Your task to perform on an android device: toggle improve location accuracy Image 0: 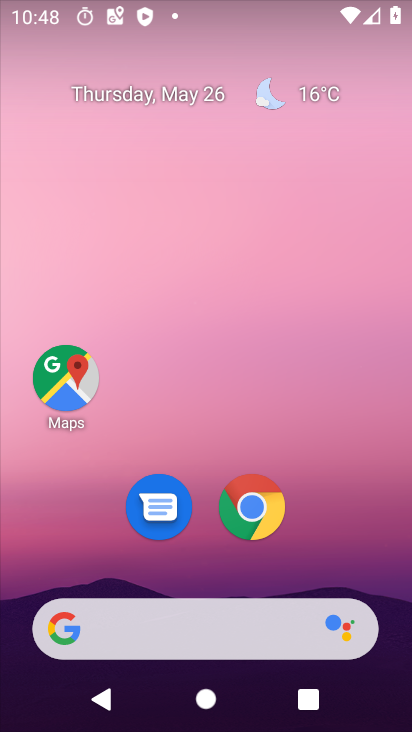
Step 0: drag from (228, 427) to (236, 285)
Your task to perform on an android device: toggle improve location accuracy Image 1: 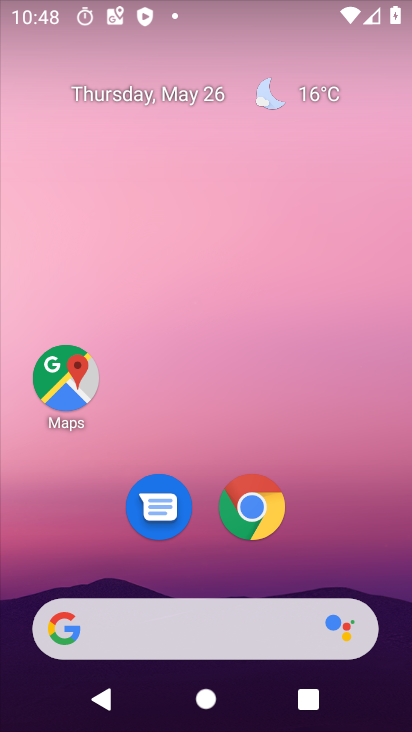
Step 1: drag from (223, 600) to (227, 245)
Your task to perform on an android device: toggle improve location accuracy Image 2: 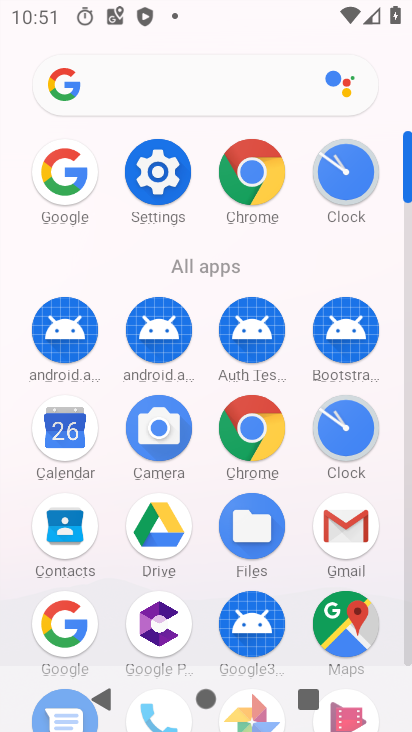
Step 2: click (142, 180)
Your task to perform on an android device: toggle improve location accuracy Image 3: 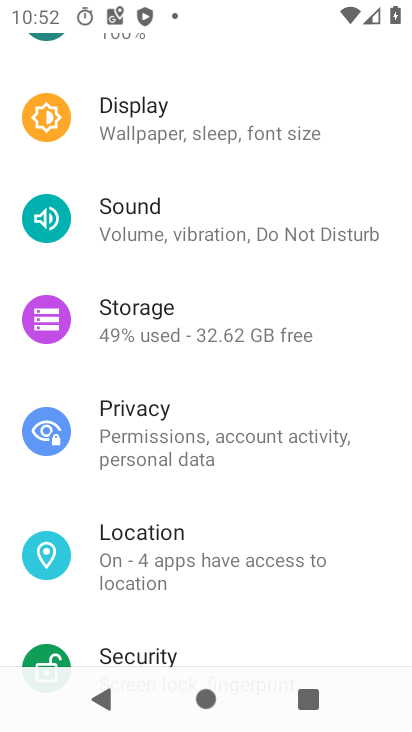
Step 3: click (160, 556)
Your task to perform on an android device: toggle improve location accuracy Image 4: 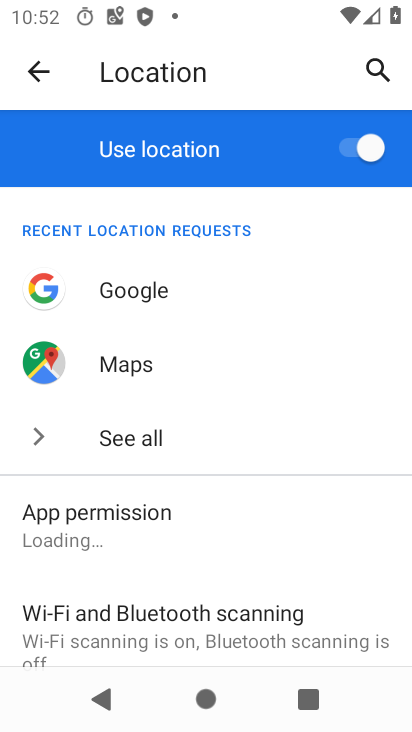
Step 4: click (151, 630)
Your task to perform on an android device: toggle improve location accuracy Image 5: 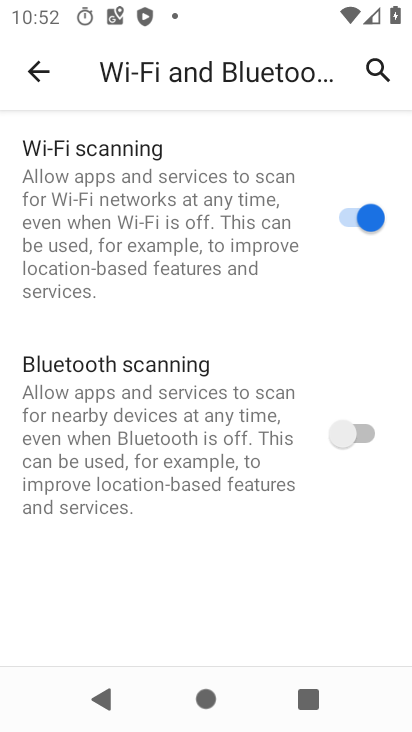
Step 5: click (41, 96)
Your task to perform on an android device: toggle improve location accuracy Image 6: 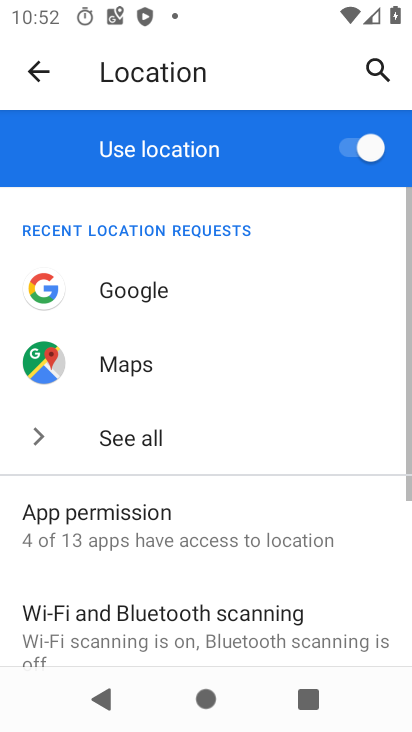
Step 6: drag from (217, 626) to (218, 277)
Your task to perform on an android device: toggle improve location accuracy Image 7: 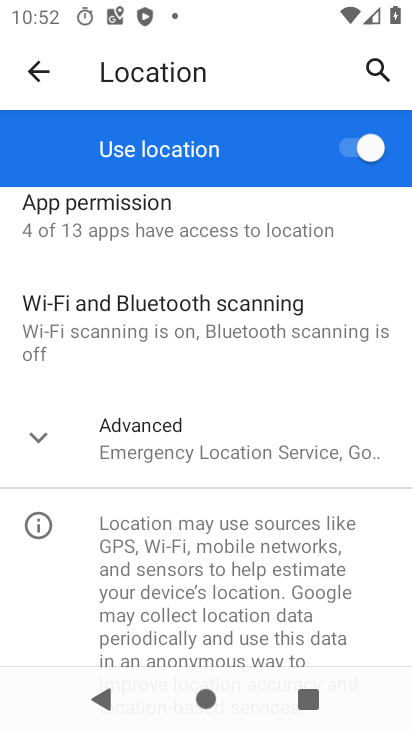
Step 7: click (186, 439)
Your task to perform on an android device: toggle improve location accuracy Image 8: 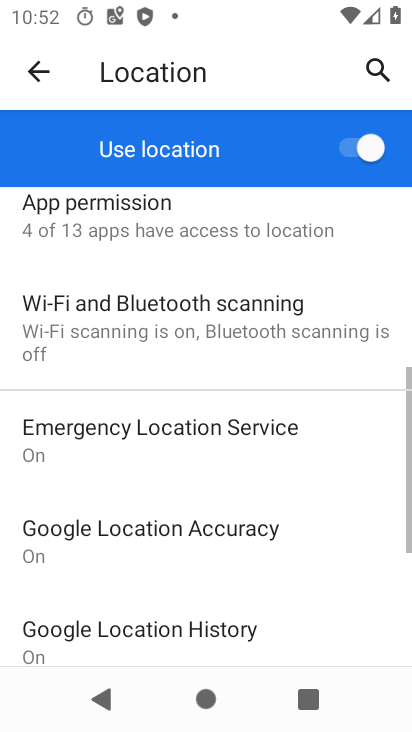
Step 8: drag from (200, 628) to (235, 342)
Your task to perform on an android device: toggle improve location accuracy Image 9: 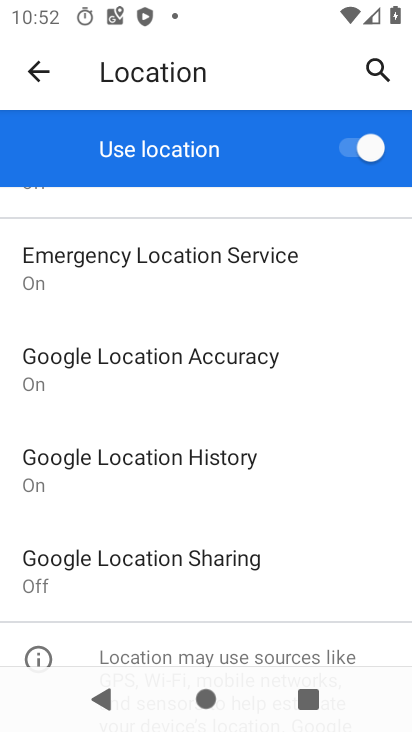
Step 9: click (218, 356)
Your task to perform on an android device: toggle improve location accuracy Image 10: 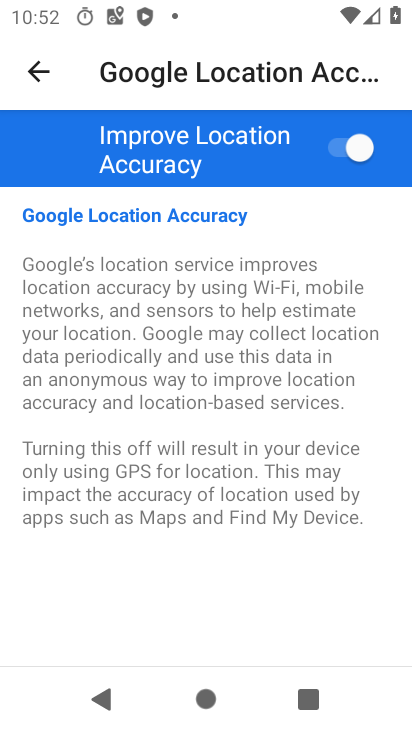
Step 10: task complete